Your task to perform on an android device: Search for "logitech g903" on ebay.com, select the first entry, add it to the cart, then select checkout. Image 0: 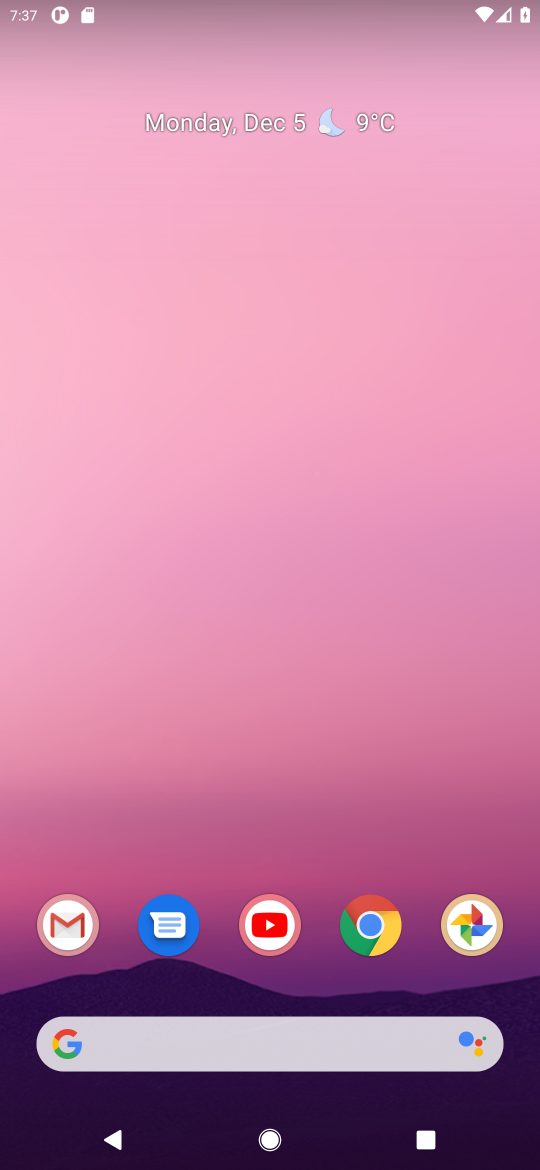
Step 0: click (367, 923)
Your task to perform on an android device: Search for "logitech g903" on ebay.com, select the first entry, add it to the cart, then select checkout. Image 1: 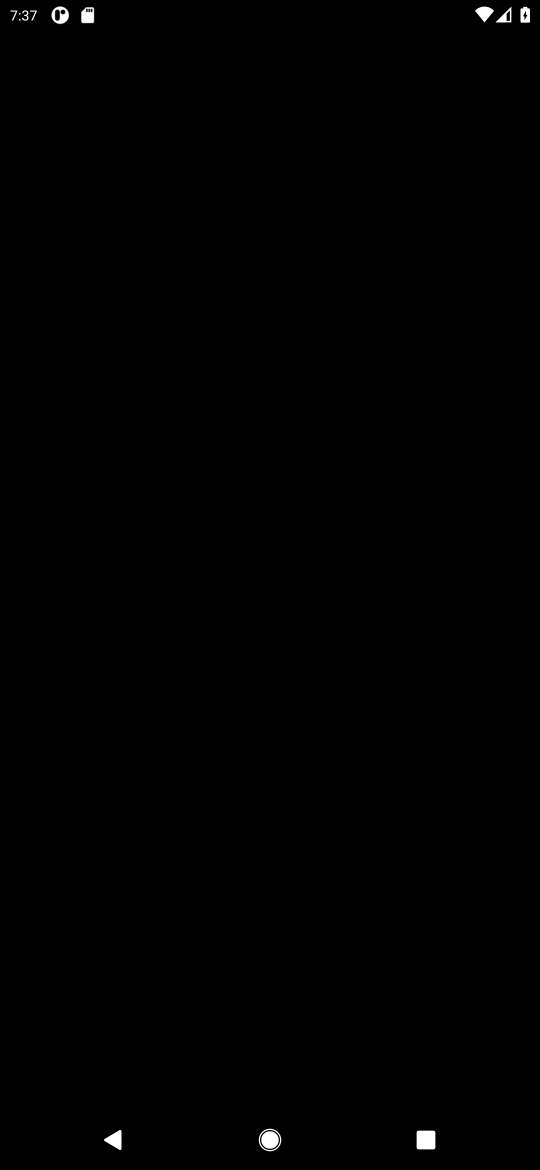
Step 1: press home button
Your task to perform on an android device: Search for "logitech g903" on ebay.com, select the first entry, add it to the cart, then select checkout. Image 2: 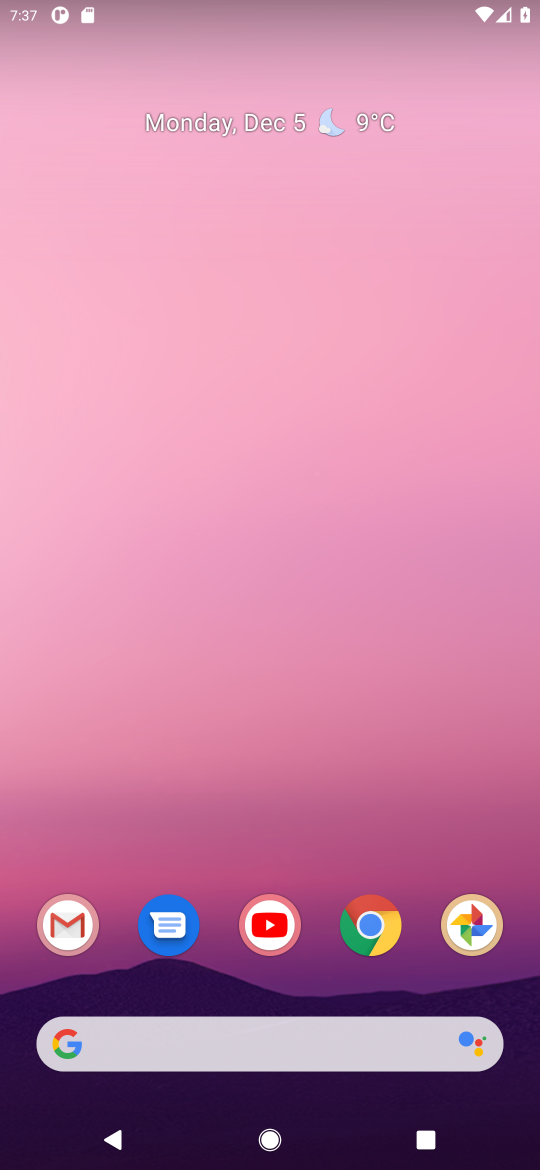
Step 2: click (374, 932)
Your task to perform on an android device: Search for "logitech g903" on ebay.com, select the first entry, add it to the cart, then select checkout. Image 3: 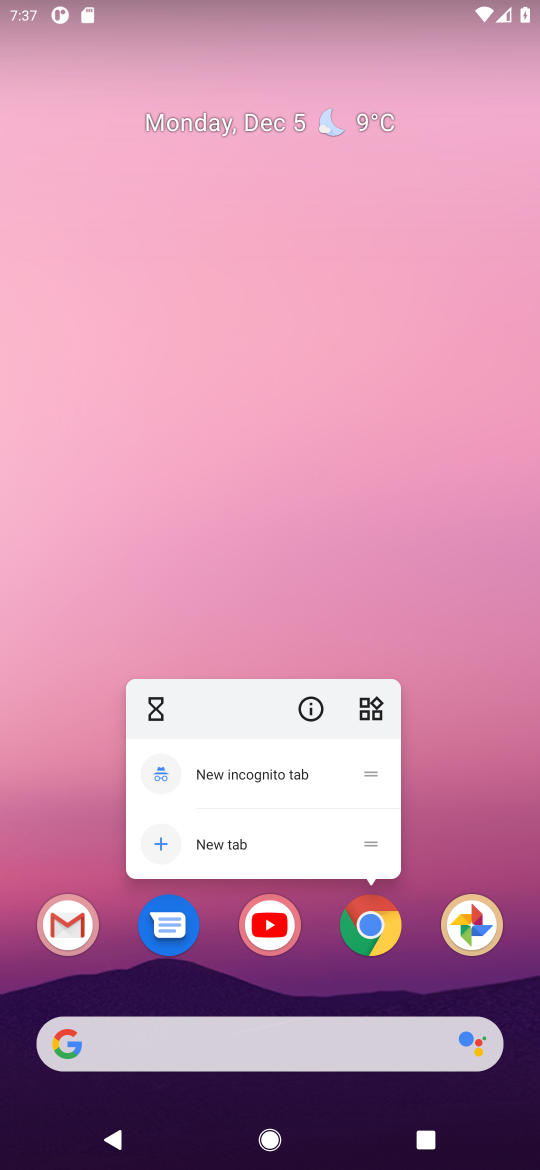
Step 3: click (374, 932)
Your task to perform on an android device: Search for "logitech g903" on ebay.com, select the first entry, add it to the cart, then select checkout. Image 4: 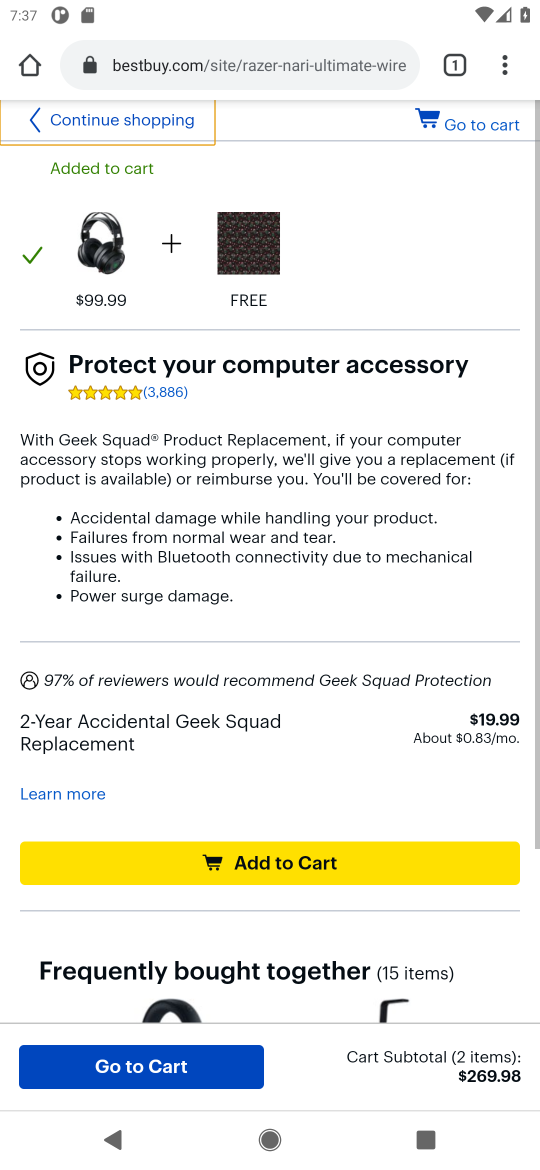
Step 4: click (178, 73)
Your task to perform on an android device: Search for "logitech g903" on ebay.com, select the first entry, add it to the cart, then select checkout. Image 5: 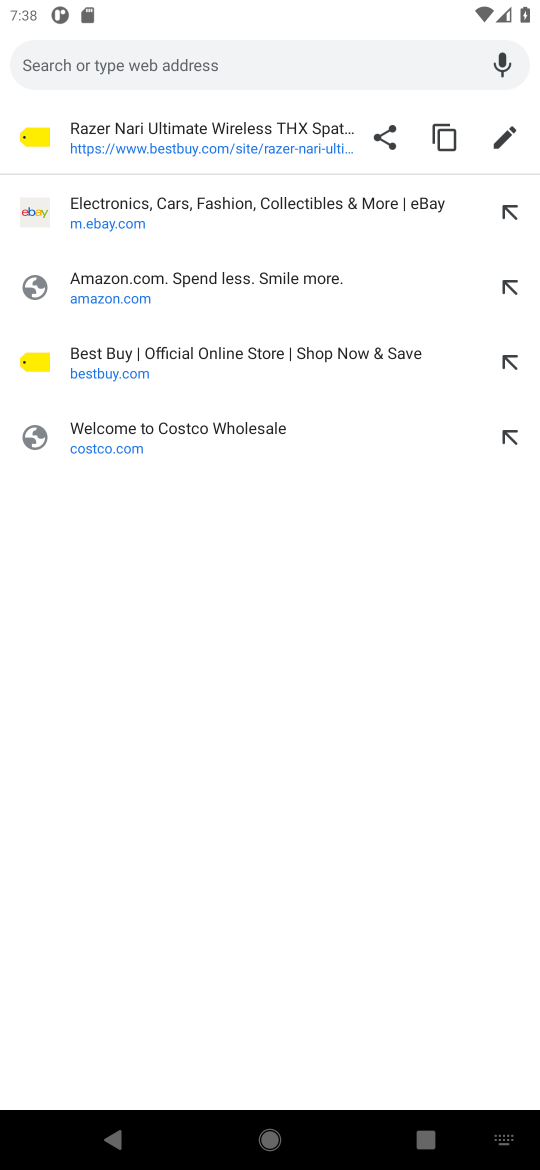
Step 5: click (118, 228)
Your task to perform on an android device: Search for "logitech g903" on ebay.com, select the first entry, add it to the cart, then select checkout. Image 6: 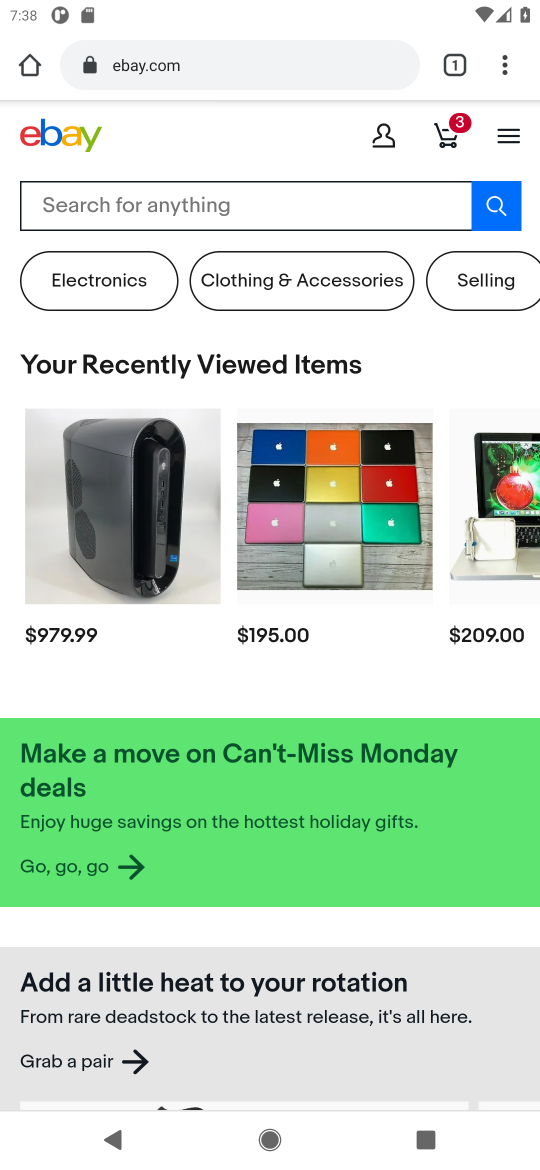
Step 6: click (157, 216)
Your task to perform on an android device: Search for "logitech g903" on ebay.com, select the first entry, add it to the cart, then select checkout. Image 7: 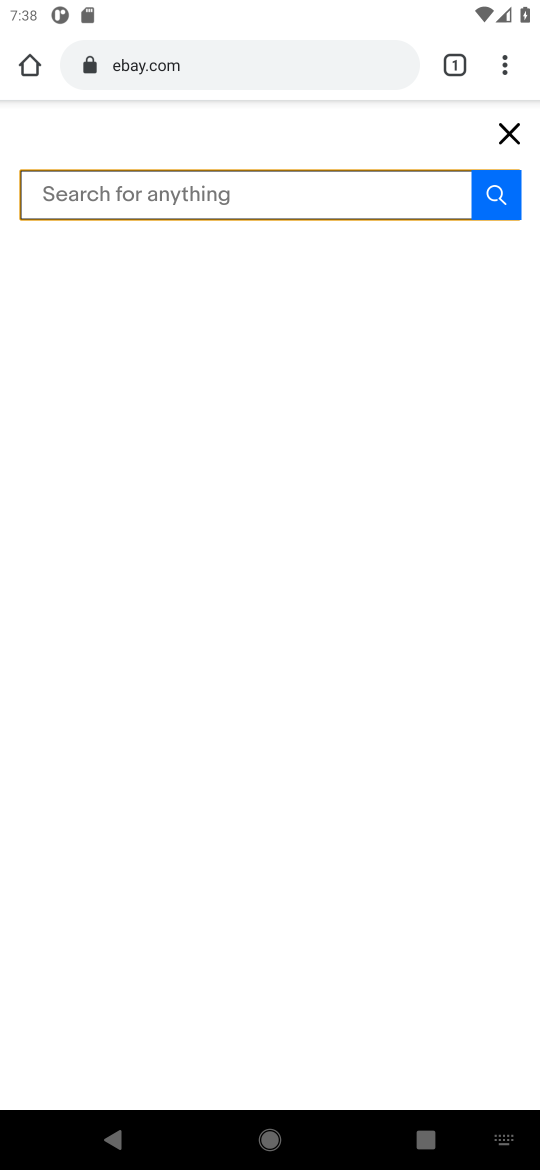
Step 7: type "logitech g903"
Your task to perform on an android device: Search for "logitech g903" on ebay.com, select the first entry, add it to the cart, then select checkout. Image 8: 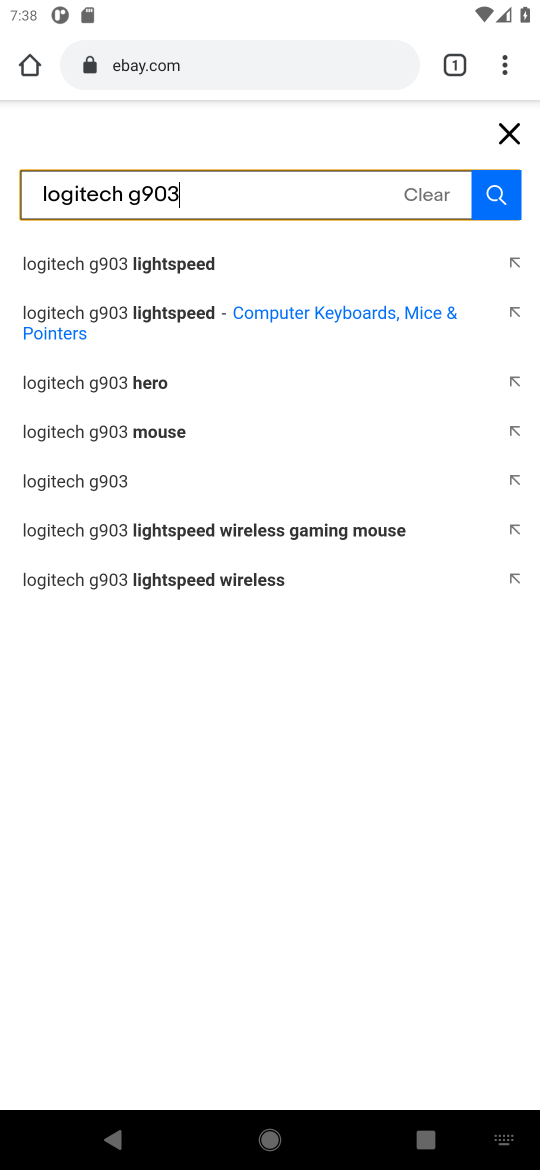
Step 8: click (76, 479)
Your task to perform on an android device: Search for "logitech g903" on ebay.com, select the first entry, add it to the cart, then select checkout. Image 9: 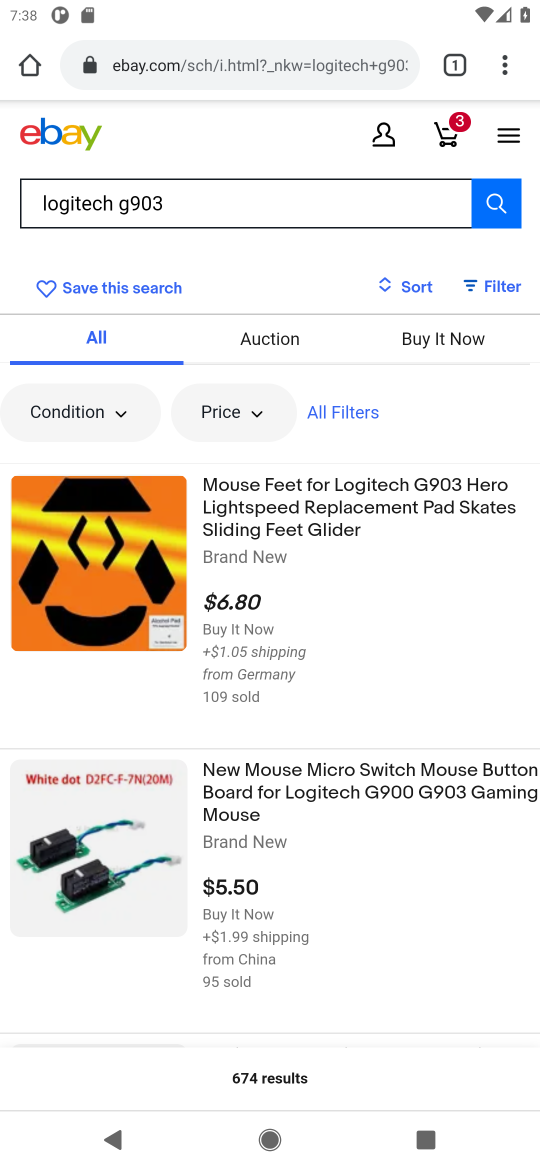
Step 9: click (248, 541)
Your task to perform on an android device: Search for "logitech g903" on ebay.com, select the first entry, add it to the cart, then select checkout. Image 10: 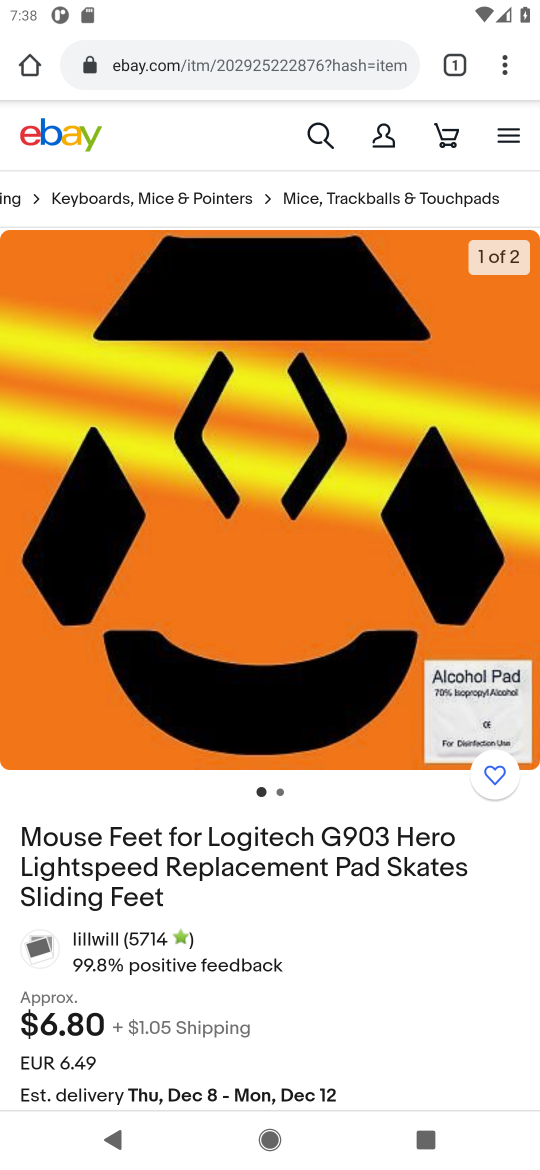
Step 10: drag from (219, 906) to (215, 365)
Your task to perform on an android device: Search for "logitech g903" on ebay.com, select the first entry, add it to the cart, then select checkout. Image 11: 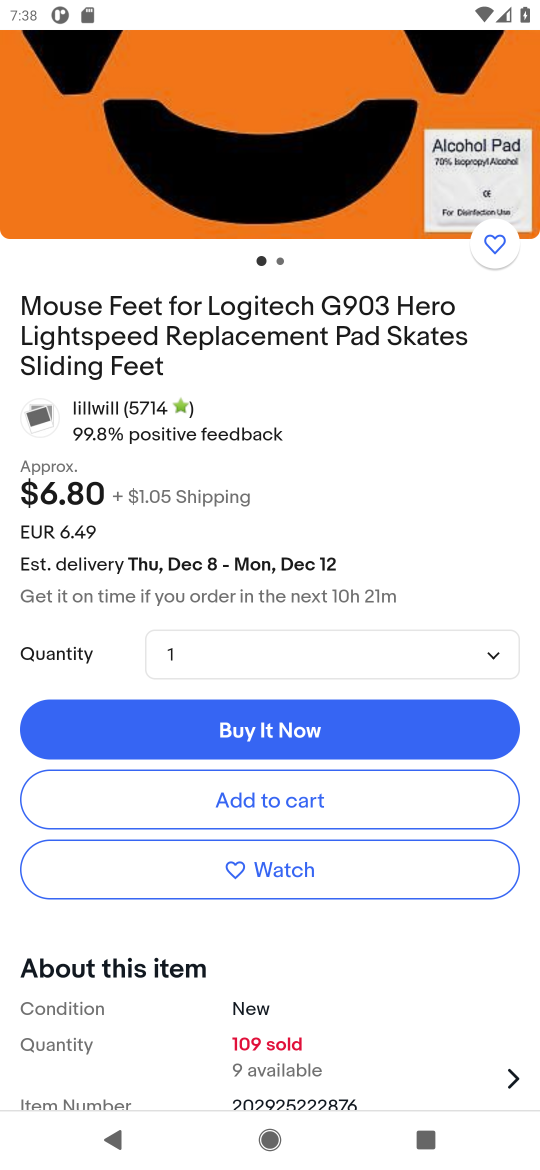
Step 11: click (191, 798)
Your task to perform on an android device: Search for "logitech g903" on ebay.com, select the first entry, add it to the cart, then select checkout. Image 12: 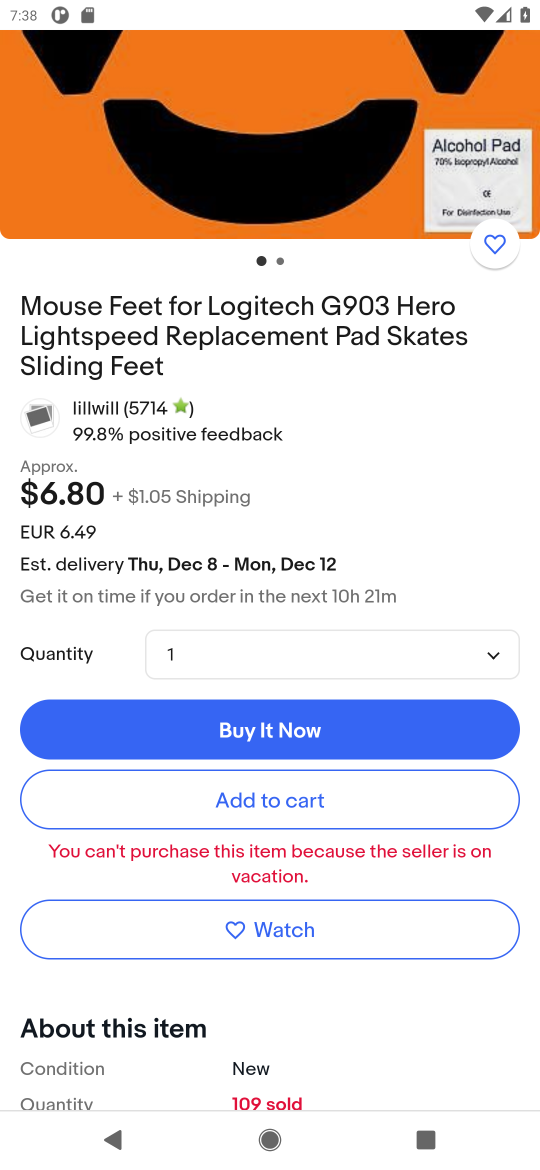
Step 12: task complete